Your task to perform on an android device: show emergency info Image 0: 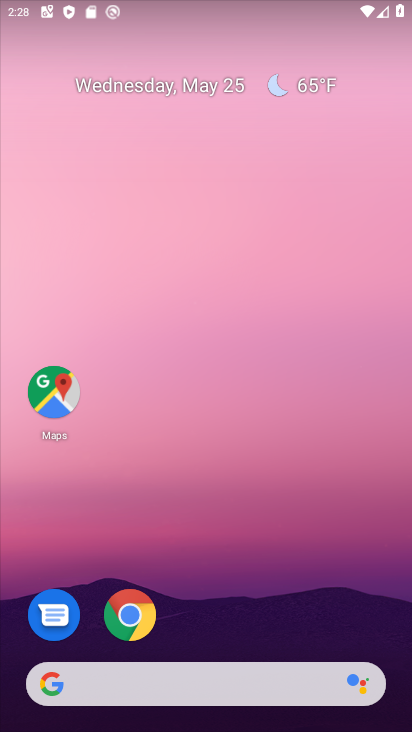
Step 0: drag from (393, 703) to (372, 53)
Your task to perform on an android device: show emergency info Image 1: 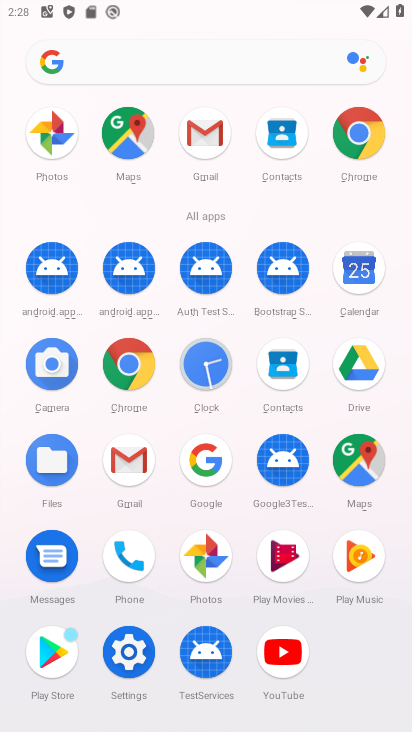
Step 1: click (129, 654)
Your task to perform on an android device: show emergency info Image 2: 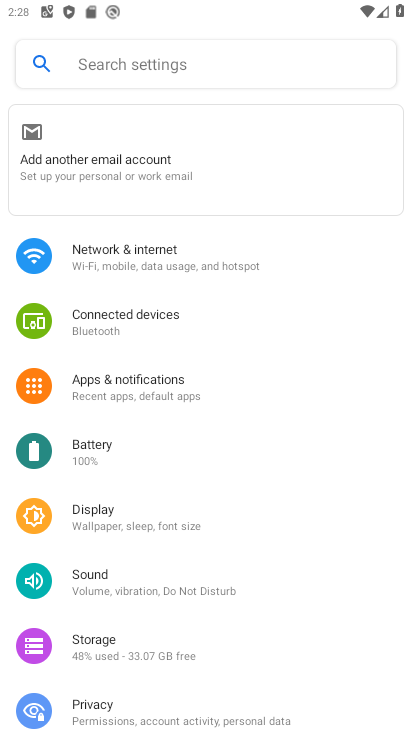
Step 2: drag from (325, 713) to (332, 245)
Your task to perform on an android device: show emergency info Image 3: 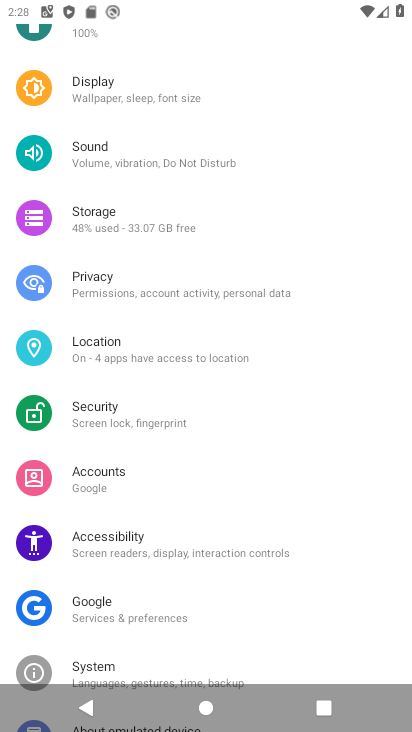
Step 3: drag from (286, 664) to (293, 236)
Your task to perform on an android device: show emergency info Image 4: 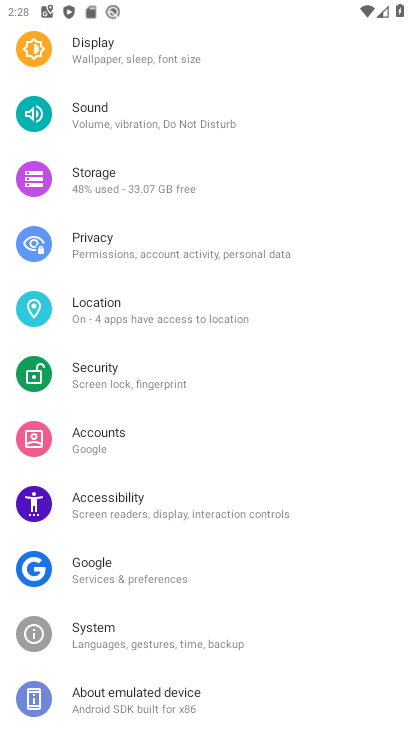
Step 4: click (135, 697)
Your task to perform on an android device: show emergency info Image 5: 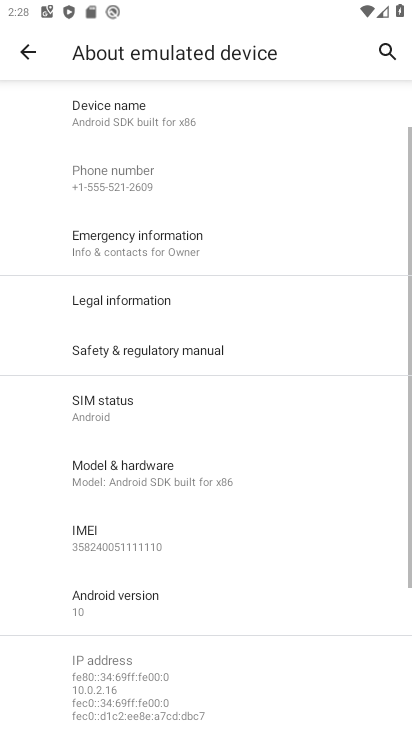
Step 5: click (130, 242)
Your task to perform on an android device: show emergency info Image 6: 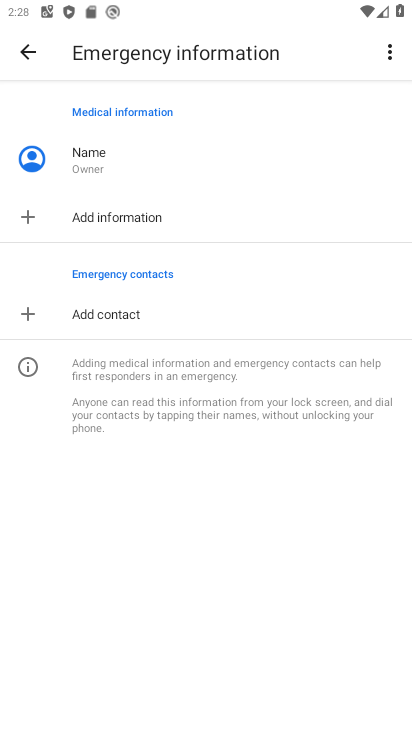
Step 6: task complete